Your task to perform on an android device: check google app version Image 0: 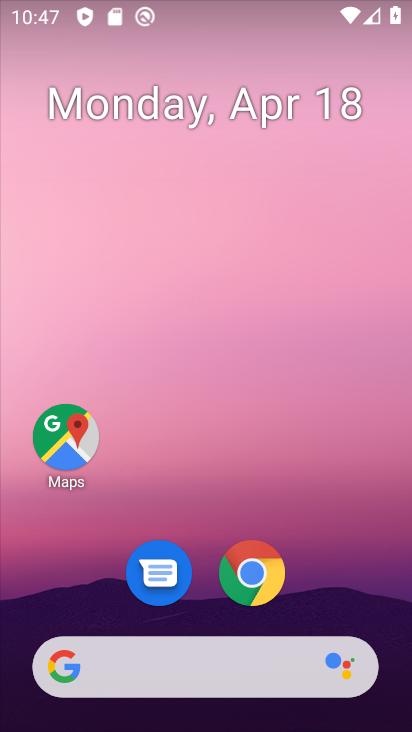
Step 0: drag from (195, 397) to (196, 135)
Your task to perform on an android device: check google app version Image 1: 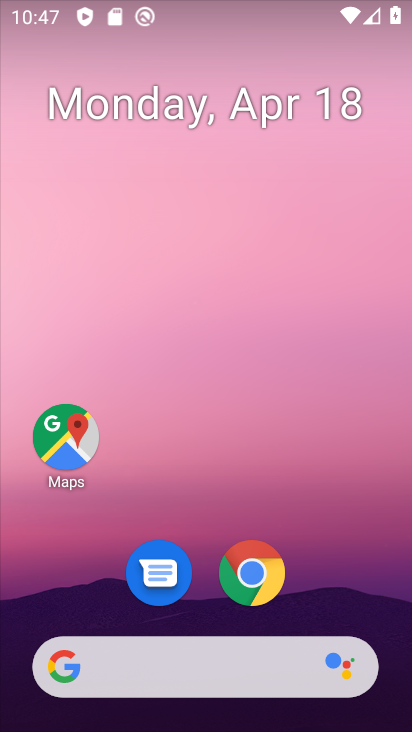
Step 1: drag from (354, 589) to (311, 67)
Your task to perform on an android device: check google app version Image 2: 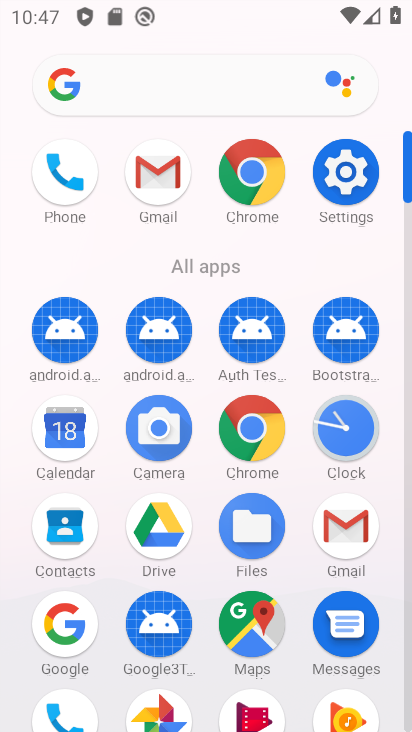
Step 2: click (67, 622)
Your task to perform on an android device: check google app version Image 3: 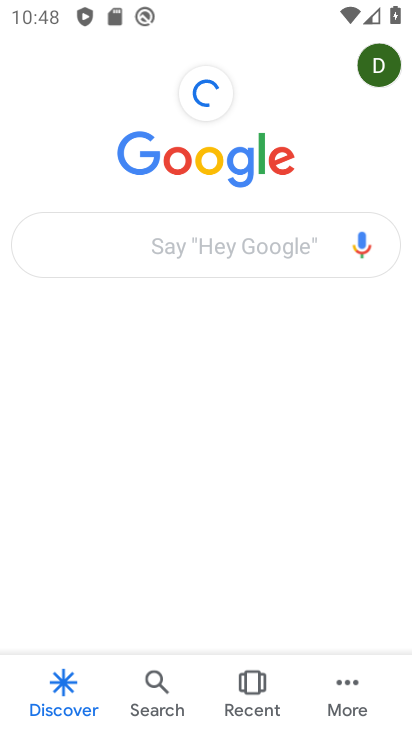
Step 3: click (354, 689)
Your task to perform on an android device: check google app version Image 4: 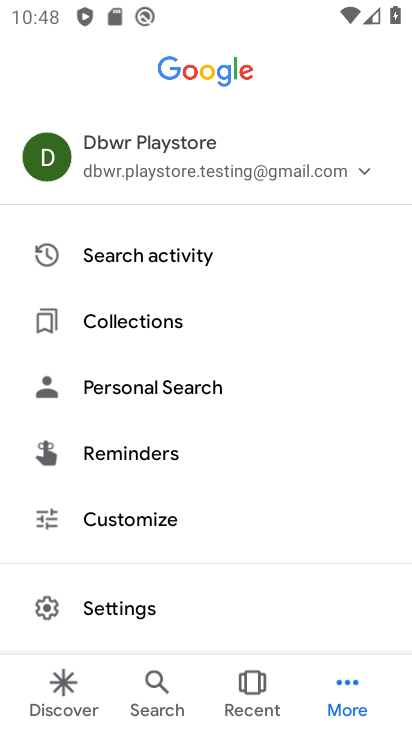
Step 4: click (129, 609)
Your task to perform on an android device: check google app version Image 5: 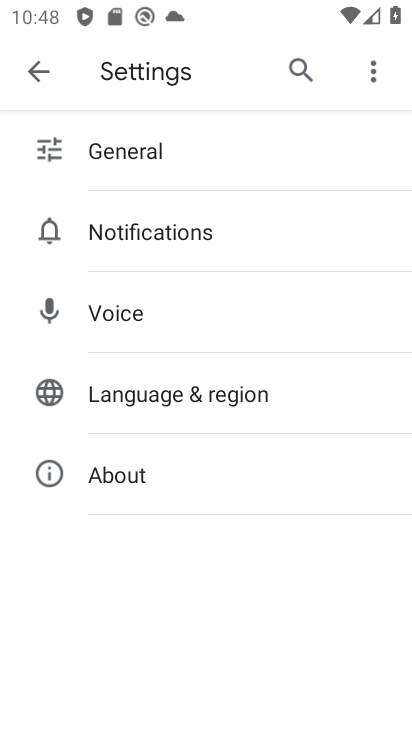
Step 5: click (135, 481)
Your task to perform on an android device: check google app version Image 6: 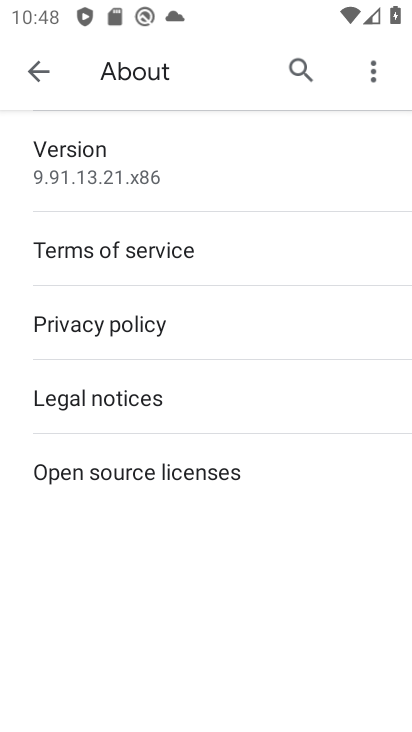
Step 6: task complete